Your task to perform on an android device: open app "NewsBreak: Local News & Alerts" (install if not already installed) Image 0: 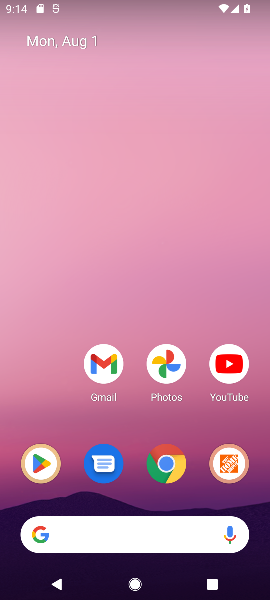
Step 0: click (43, 447)
Your task to perform on an android device: open app "NewsBreak: Local News & Alerts" (install if not already installed) Image 1: 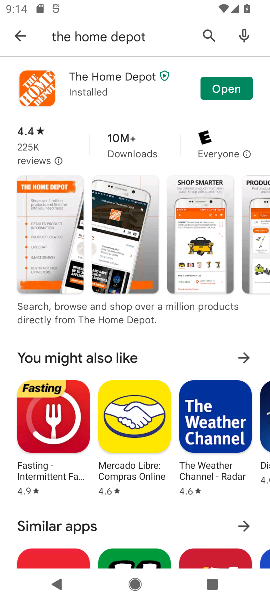
Step 1: click (206, 25)
Your task to perform on an android device: open app "NewsBreak: Local News & Alerts" (install if not already installed) Image 2: 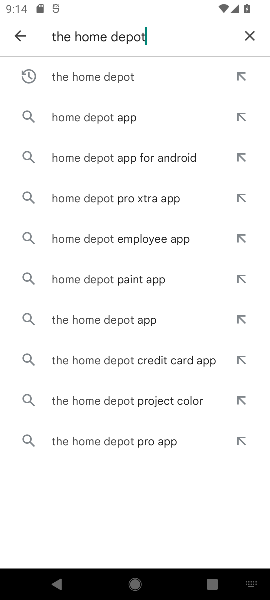
Step 2: click (247, 32)
Your task to perform on an android device: open app "NewsBreak: Local News & Alerts" (install if not already installed) Image 3: 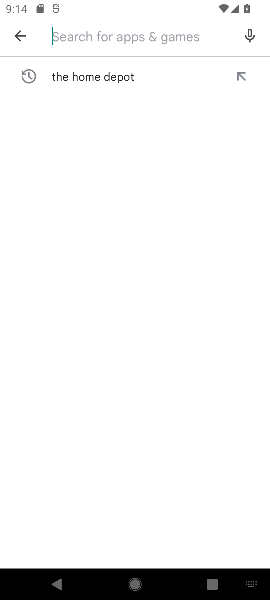
Step 3: click (120, 33)
Your task to perform on an android device: open app "NewsBreak: Local News & Alerts" (install if not already installed) Image 4: 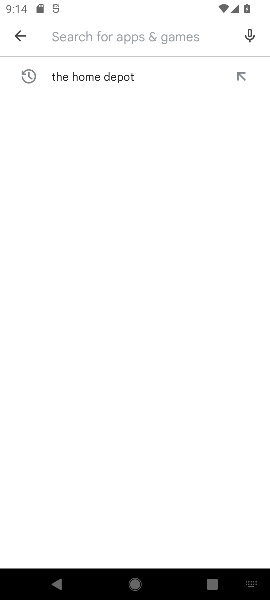
Step 4: type "newsbreak"
Your task to perform on an android device: open app "NewsBreak: Local News & Alerts" (install if not already installed) Image 5: 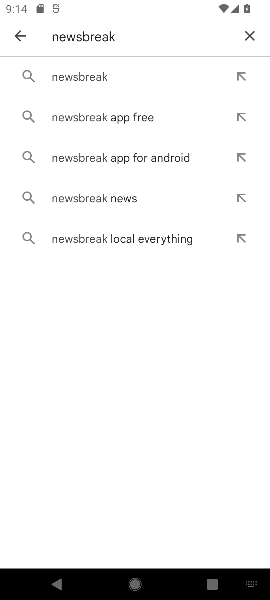
Step 5: click (85, 71)
Your task to perform on an android device: open app "NewsBreak: Local News & Alerts" (install if not already installed) Image 6: 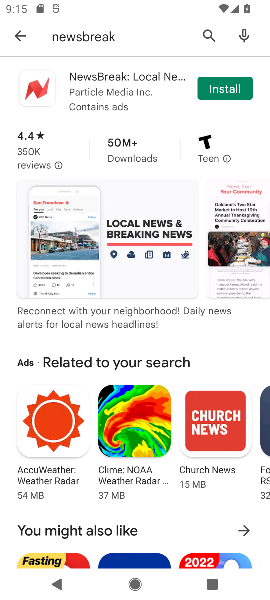
Step 6: click (227, 88)
Your task to perform on an android device: open app "NewsBreak: Local News & Alerts" (install if not already installed) Image 7: 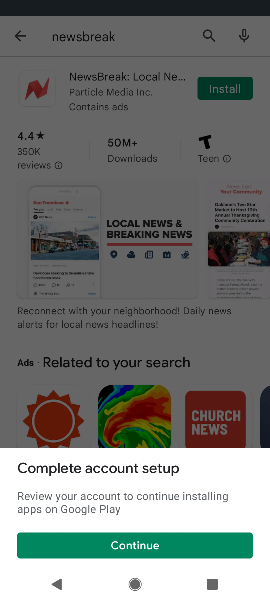
Step 7: click (160, 551)
Your task to perform on an android device: open app "NewsBreak: Local News & Alerts" (install if not already installed) Image 8: 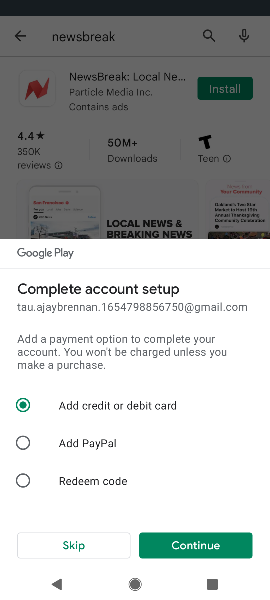
Step 8: click (56, 539)
Your task to perform on an android device: open app "NewsBreak: Local News & Alerts" (install if not already installed) Image 9: 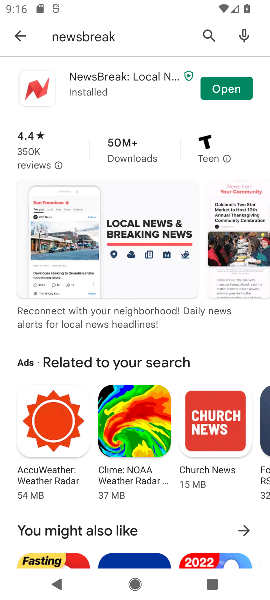
Step 9: click (212, 91)
Your task to perform on an android device: open app "NewsBreak: Local News & Alerts" (install if not already installed) Image 10: 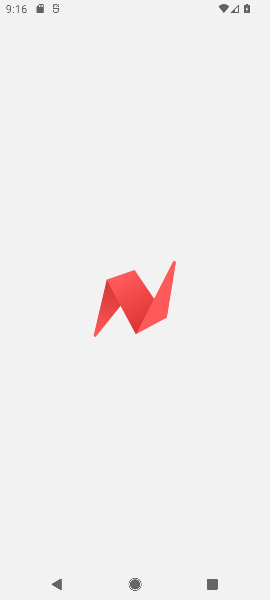
Step 10: task complete